Your task to perform on an android device: change notification settings in the gmail app Image 0: 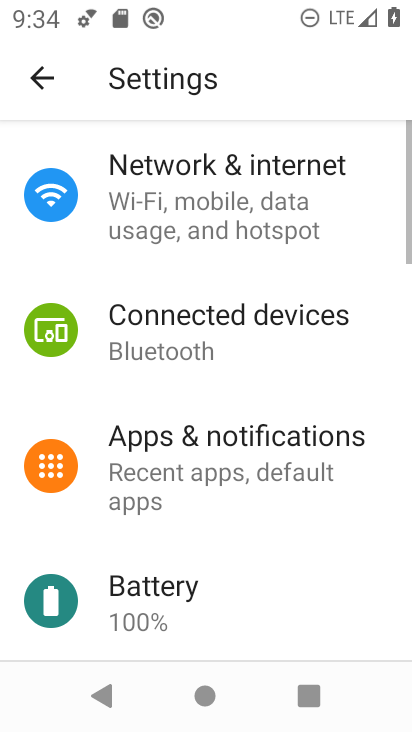
Step 0: press home button
Your task to perform on an android device: change notification settings in the gmail app Image 1: 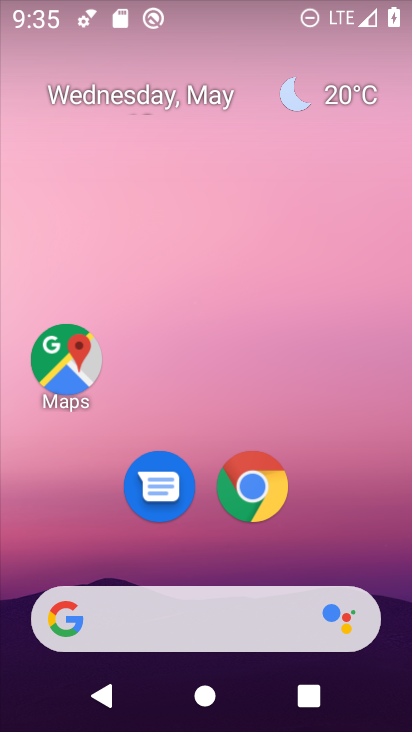
Step 1: drag from (400, 630) to (328, 147)
Your task to perform on an android device: change notification settings in the gmail app Image 2: 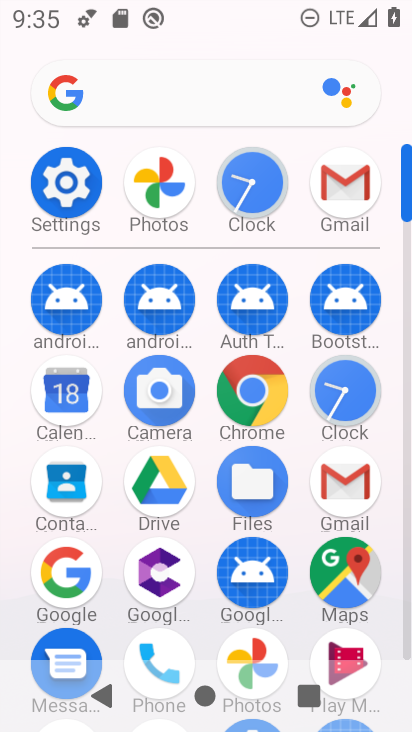
Step 2: click (408, 638)
Your task to perform on an android device: change notification settings in the gmail app Image 3: 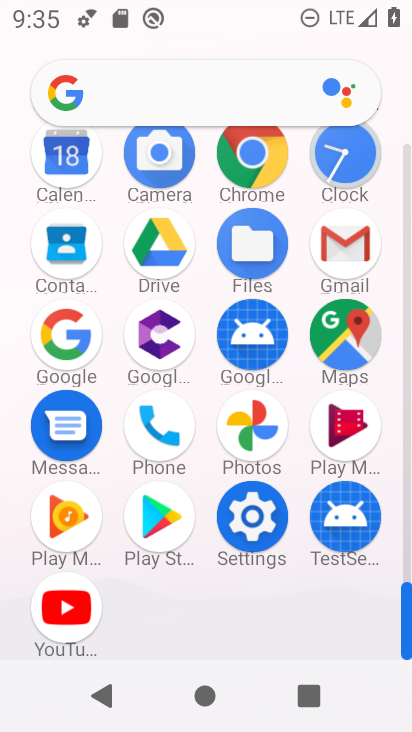
Step 3: click (343, 243)
Your task to perform on an android device: change notification settings in the gmail app Image 4: 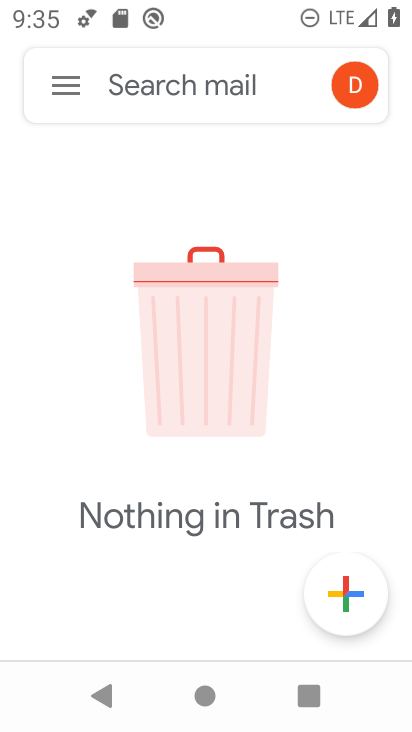
Step 4: click (63, 84)
Your task to perform on an android device: change notification settings in the gmail app Image 5: 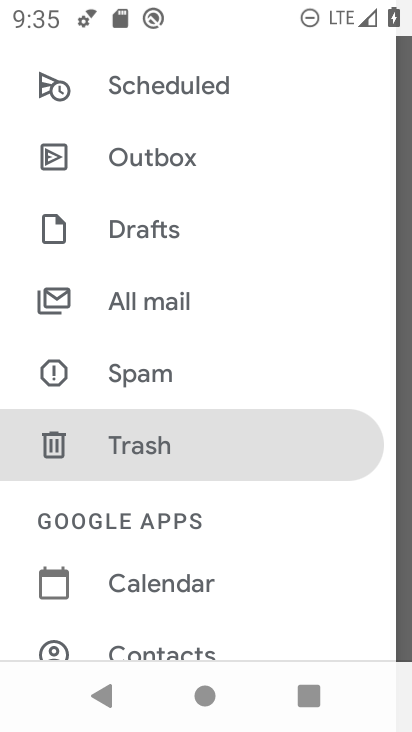
Step 5: drag from (256, 563) to (263, 63)
Your task to perform on an android device: change notification settings in the gmail app Image 6: 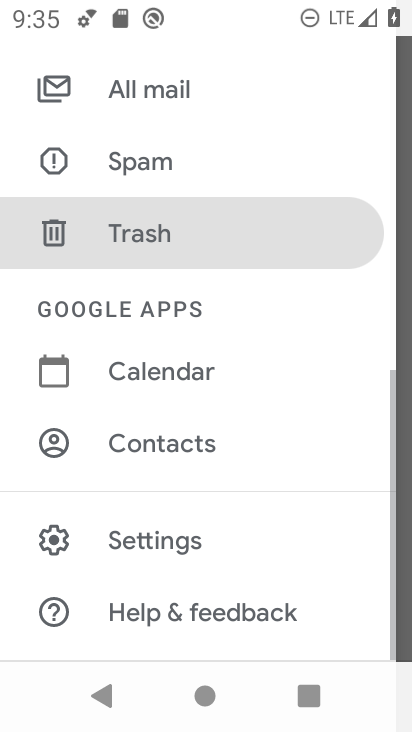
Step 6: click (146, 543)
Your task to perform on an android device: change notification settings in the gmail app Image 7: 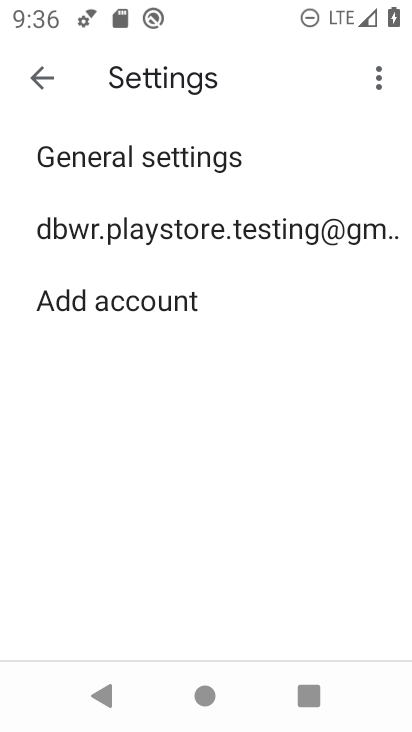
Step 7: click (153, 225)
Your task to perform on an android device: change notification settings in the gmail app Image 8: 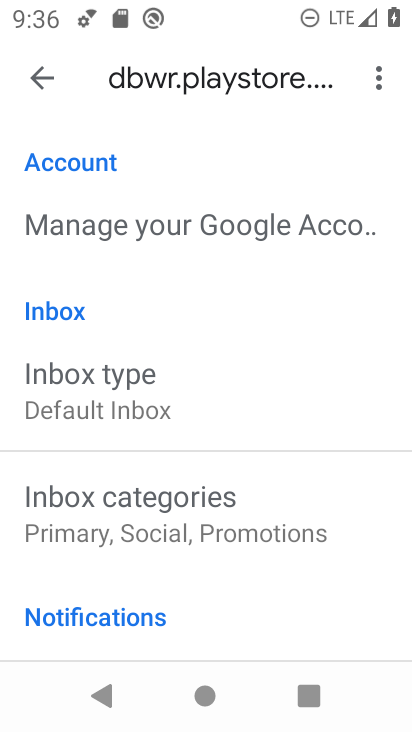
Step 8: drag from (284, 655) to (271, 106)
Your task to perform on an android device: change notification settings in the gmail app Image 9: 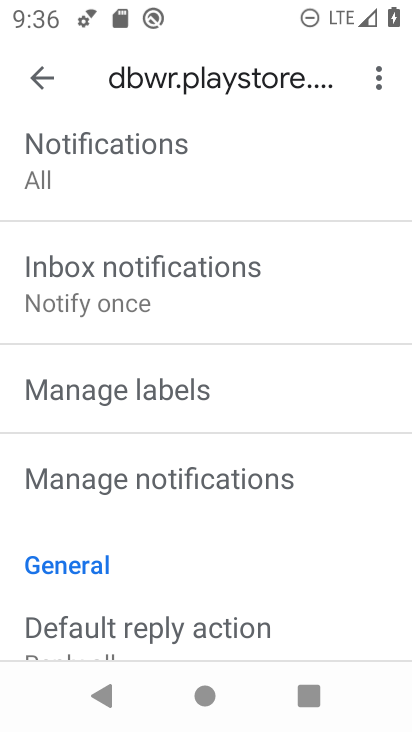
Step 9: click (175, 468)
Your task to perform on an android device: change notification settings in the gmail app Image 10: 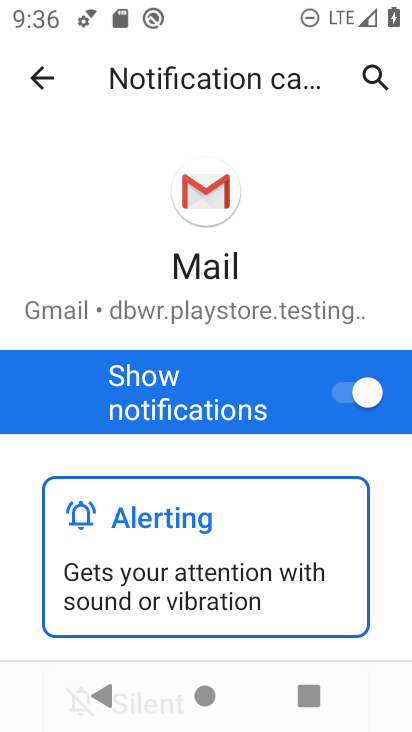
Step 10: drag from (226, 624) to (196, 97)
Your task to perform on an android device: change notification settings in the gmail app Image 11: 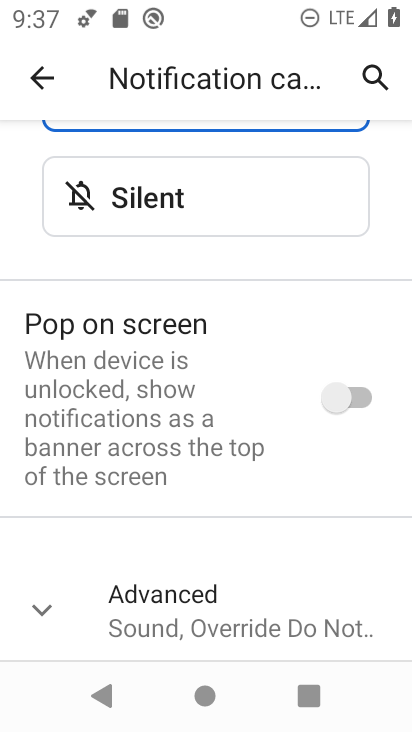
Step 11: click (44, 617)
Your task to perform on an android device: change notification settings in the gmail app Image 12: 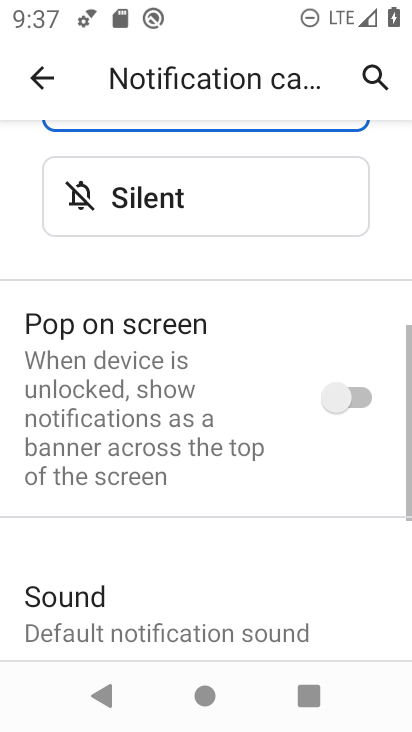
Step 12: drag from (232, 574) to (258, 264)
Your task to perform on an android device: change notification settings in the gmail app Image 13: 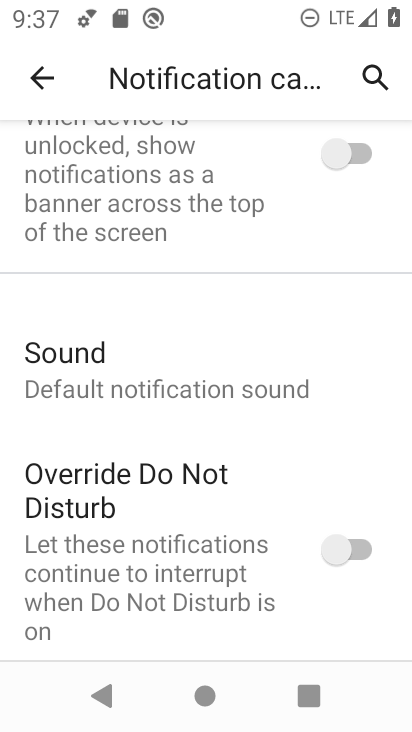
Step 13: click (367, 150)
Your task to perform on an android device: change notification settings in the gmail app Image 14: 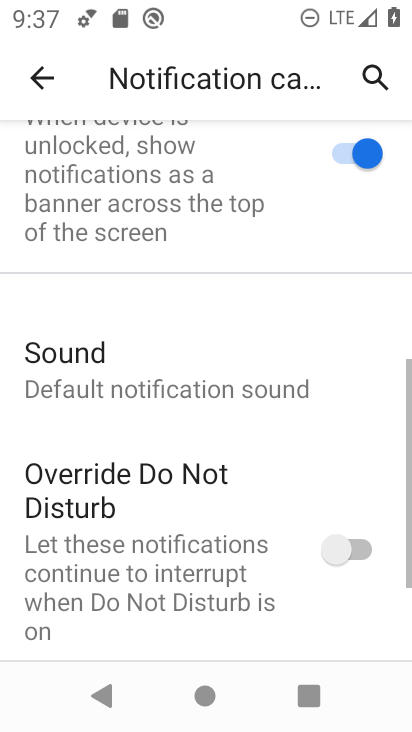
Step 14: click (365, 561)
Your task to perform on an android device: change notification settings in the gmail app Image 15: 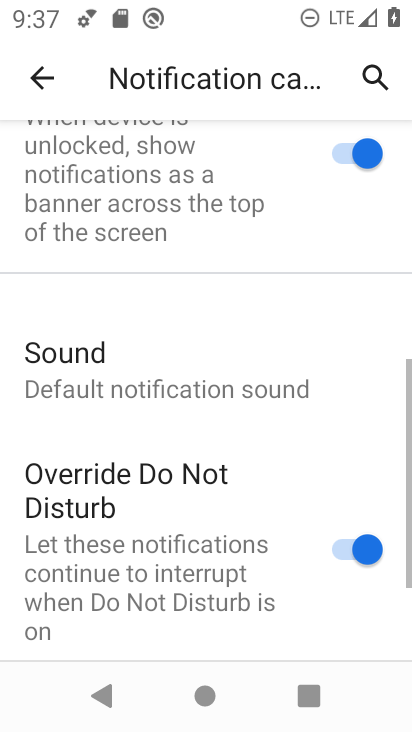
Step 15: task complete